Your task to perform on an android device: Go to battery settings Image 0: 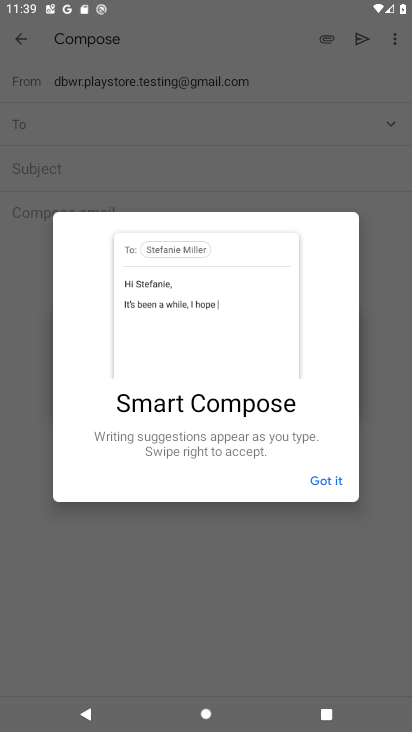
Step 0: press home button
Your task to perform on an android device: Go to battery settings Image 1: 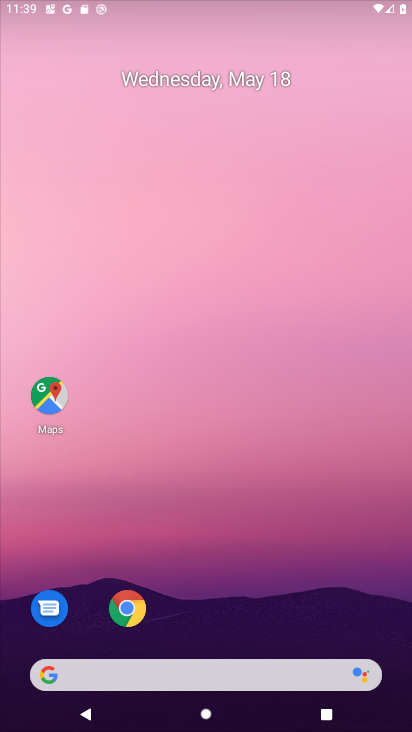
Step 1: drag from (176, 577) to (168, 102)
Your task to perform on an android device: Go to battery settings Image 2: 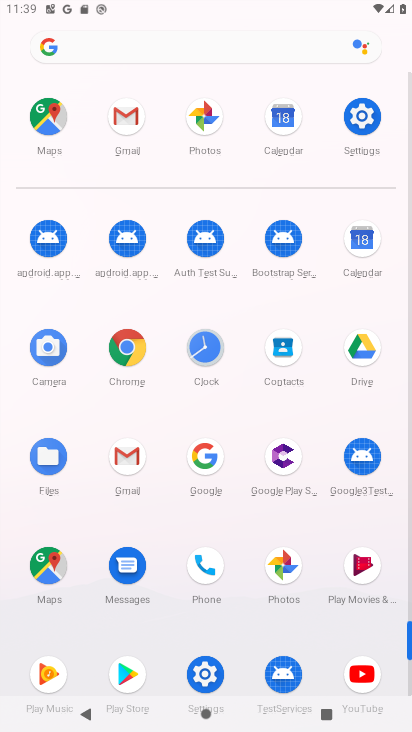
Step 2: click (360, 124)
Your task to perform on an android device: Go to battery settings Image 3: 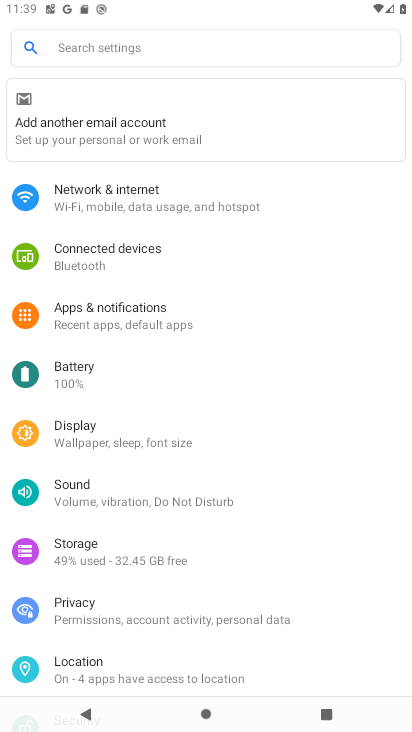
Step 3: click (67, 382)
Your task to perform on an android device: Go to battery settings Image 4: 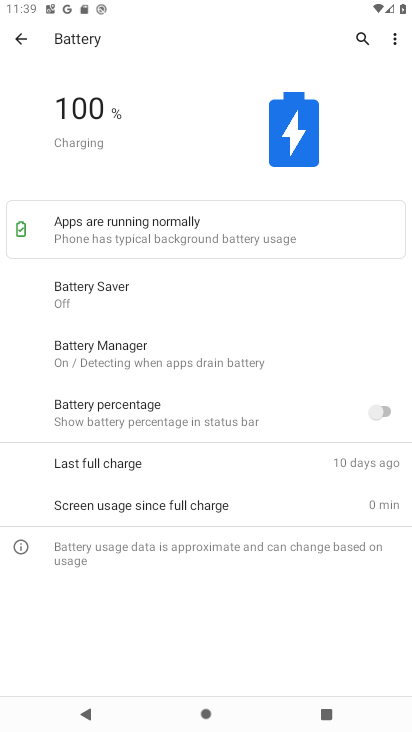
Step 4: task complete